Your task to perform on an android device: Go to Android settings Image 0: 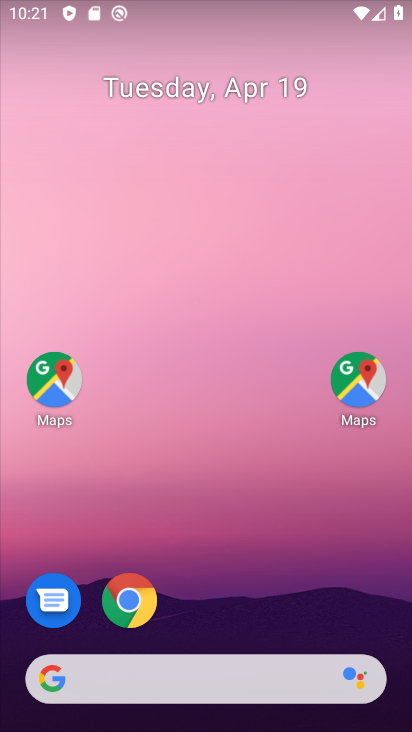
Step 0: drag from (315, 654) to (265, 1)
Your task to perform on an android device: Go to Android settings Image 1: 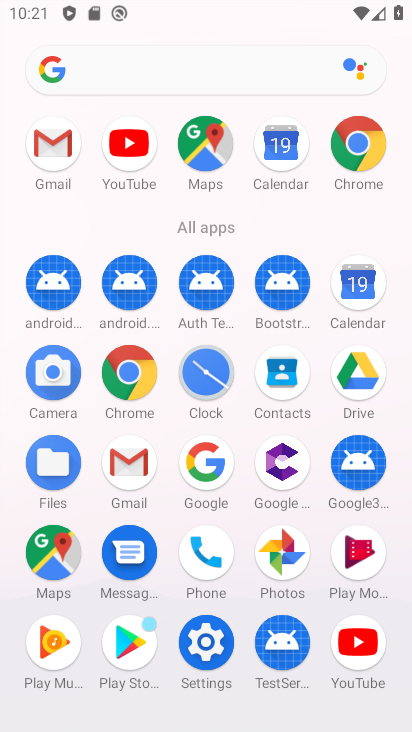
Step 1: click (209, 645)
Your task to perform on an android device: Go to Android settings Image 2: 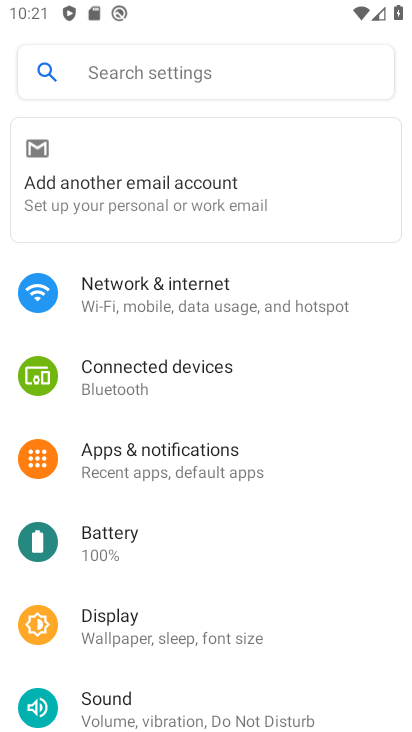
Step 2: drag from (215, 635) to (199, 176)
Your task to perform on an android device: Go to Android settings Image 3: 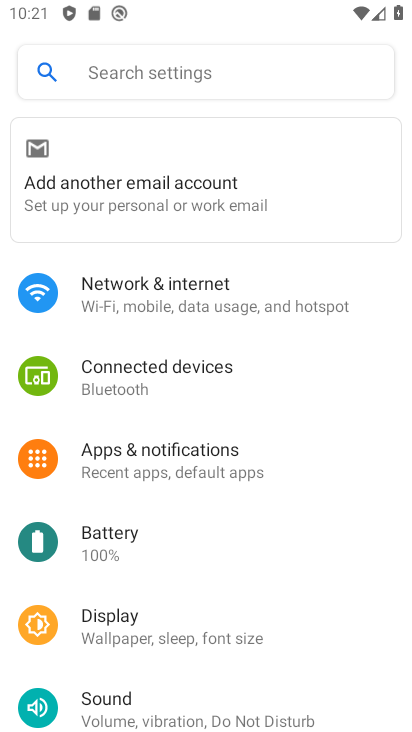
Step 3: drag from (232, 700) to (172, 286)
Your task to perform on an android device: Go to Android settings Image 4: 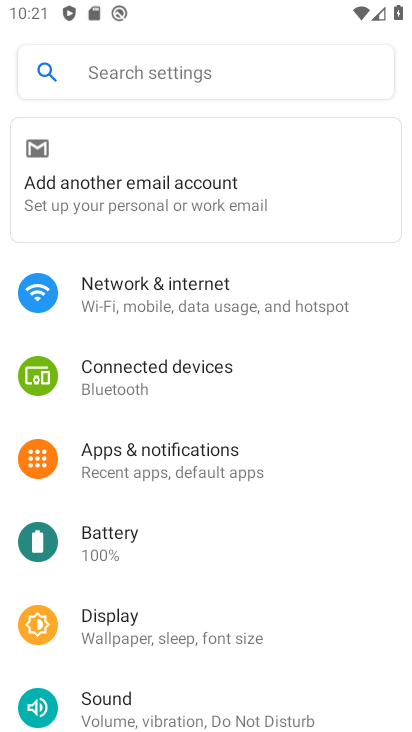
Step 4: drag from (332, 652) to (313, 304)
Your task to perform on an android device: Go to Android settings Image 5: 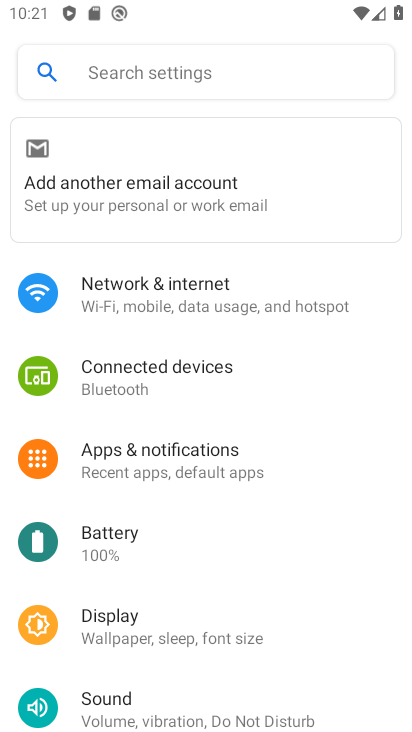
Step 5: drag from (188, 717) to (206, 37)
Your task to perform on an android device: Go to Android settings Image 6: 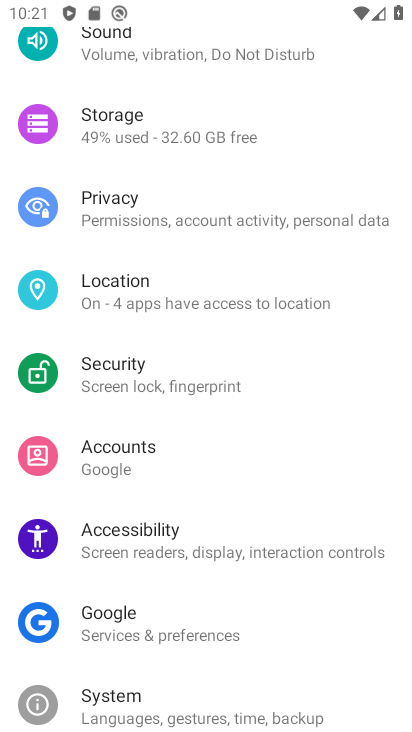
Step 6: drag from (248, 723) to (234, 99)
Your task to perform on an android device: Go to Android settings Image 7: 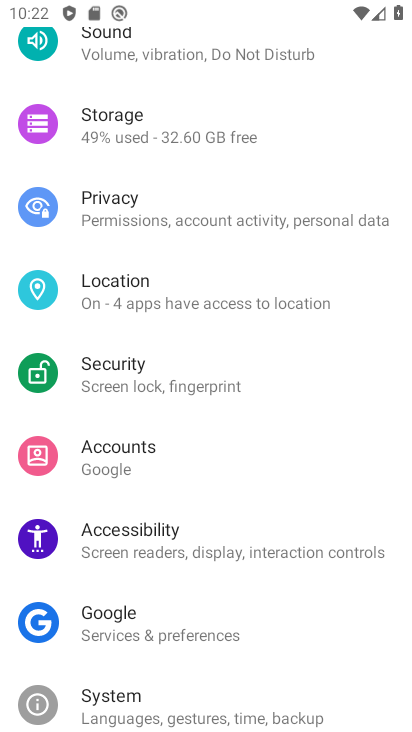
Step 7: drag from (255, 690) to (238, 131)
Your task to perform on an android device: Go to Android settings Image 8: 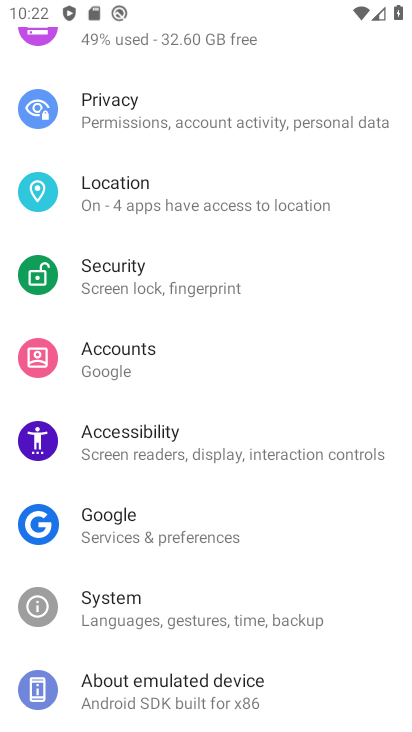
Step 8: click (187, 701)
Your task to perform on an android device: Go to Android settings Image 9: 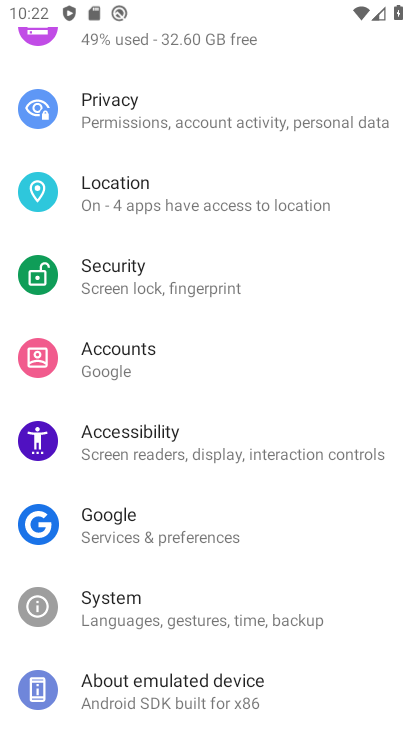
Step 9: click (187, 701)
Your task to perform on an android device: Go to Android settings Image 10: 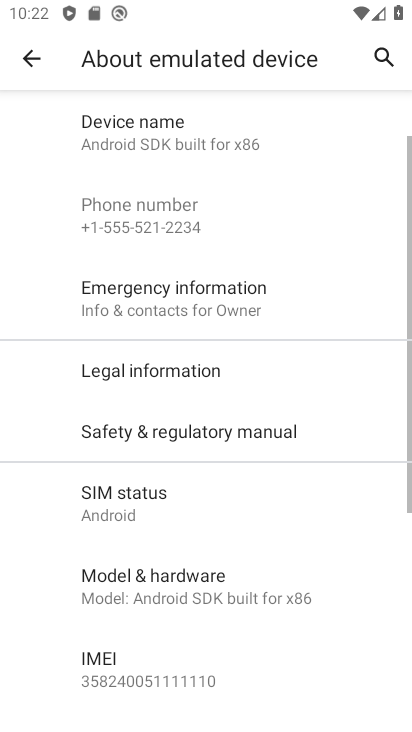
Step 10: drag from (270, 642) to (272, 170)
Your task to perform on an android device: Go to Android settings Image 11: 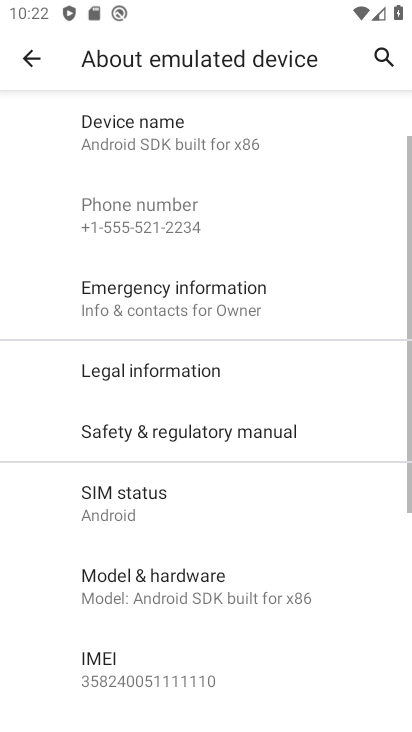
Step 11: drag from (256, 668) to (219, 272)
Your task to perform on an android device: Go to Android settings Image 12: 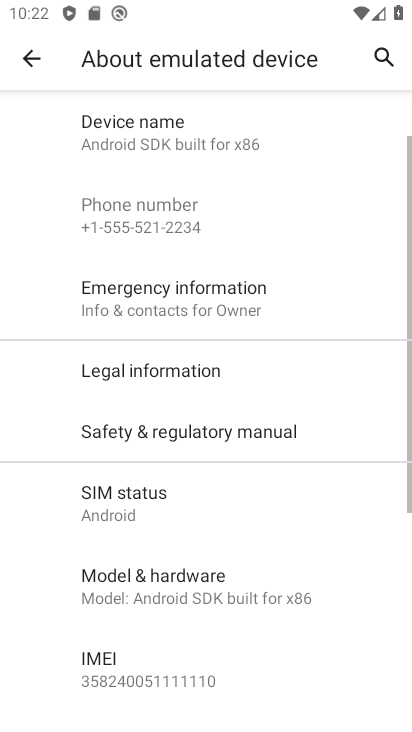
Step 12: drag from (373, 676) to (356, 136)
Your task to perform on an android device: Go to Android settings Image 13: 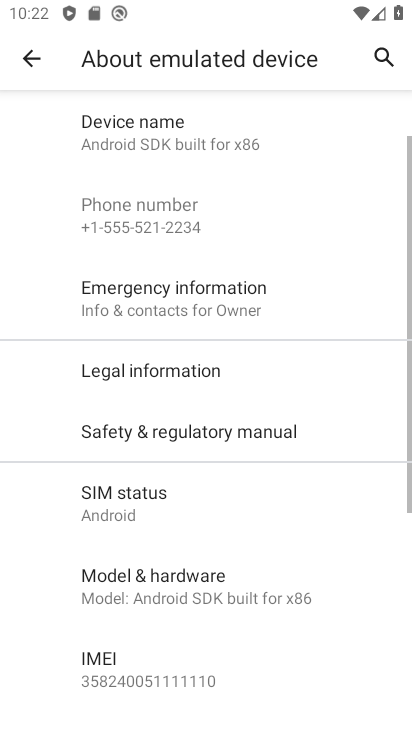
Step 13: click (111, 61)
Your task to perform on an android device: Go to Android settings Image 14: 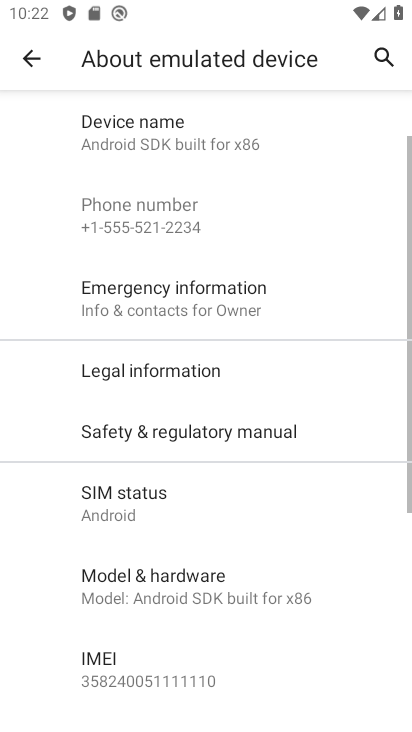
Step 14: drag from (375, 701) to (349, 121)
Your task to perform on an android device: Go to Android settings Image 15: 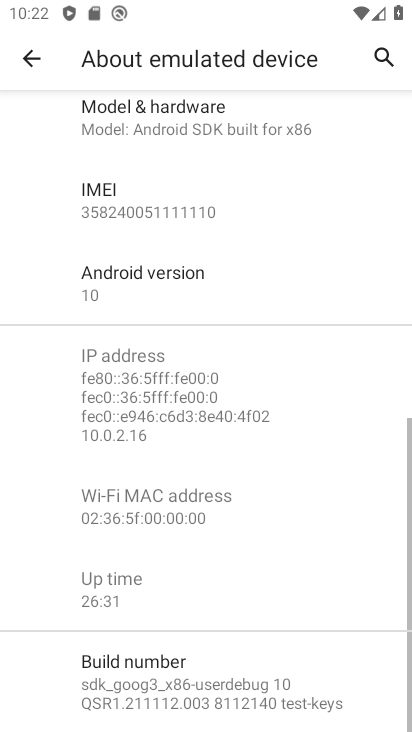
Step 15: click (232, 283)
Your task to perform on an android device: Go to Android settings Image 16: 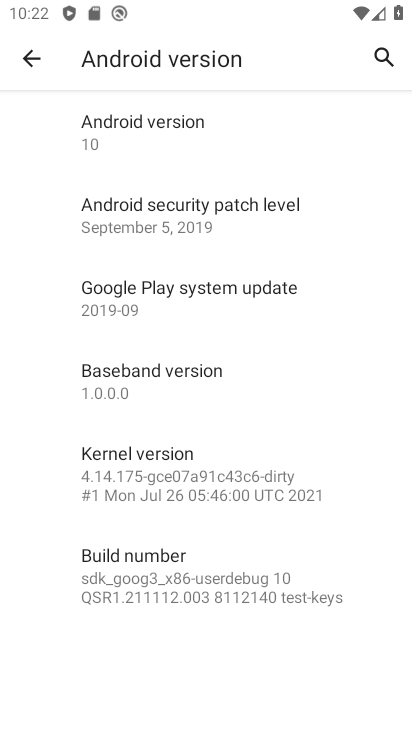
Step 16: task complete